Your task to perform on an android device: check out phone information Image 0: 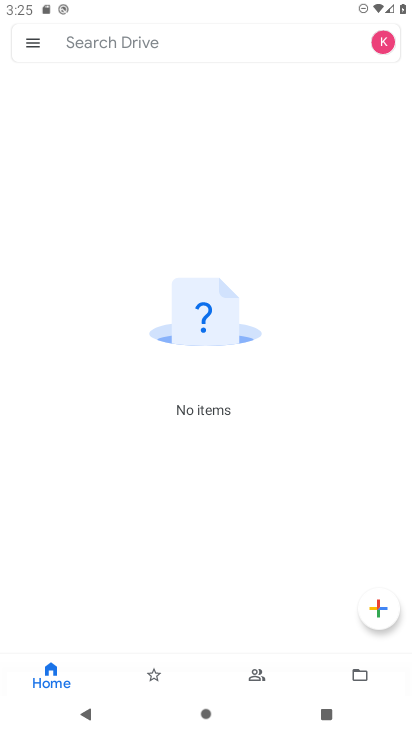
Step 0: drag from (218, 611) to (193, 184)
Your task to perform on an android device: check out phone information Image 1: 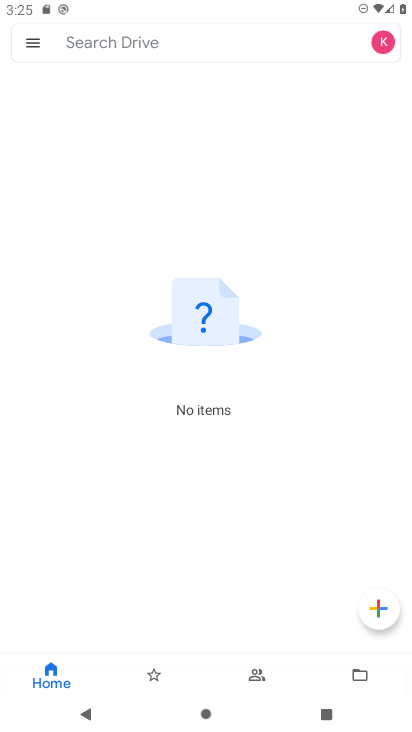
Step 1: press home button
Your task to perform on an android device: check out phone information Image 2: 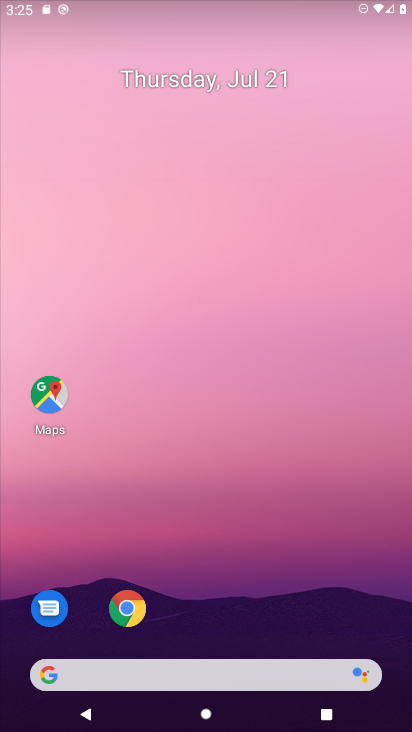
Step 2: drag from (258, 598) to (200, 69)
Your task to perform on an android device: check out phone information Image 3: 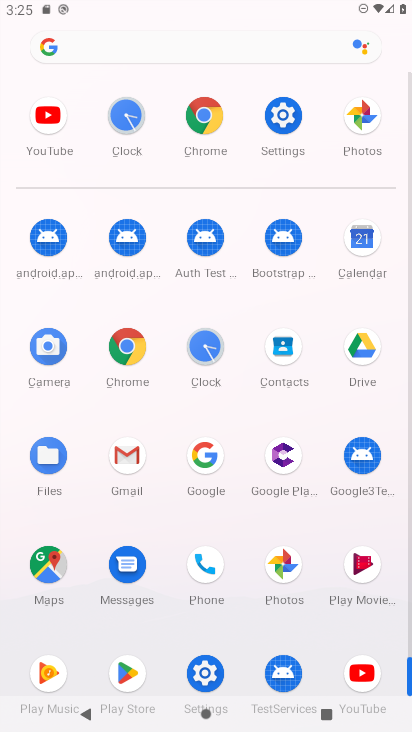
Step 3: click (275, 124)
Your task to perform on an android device: check out phone information Image 4: 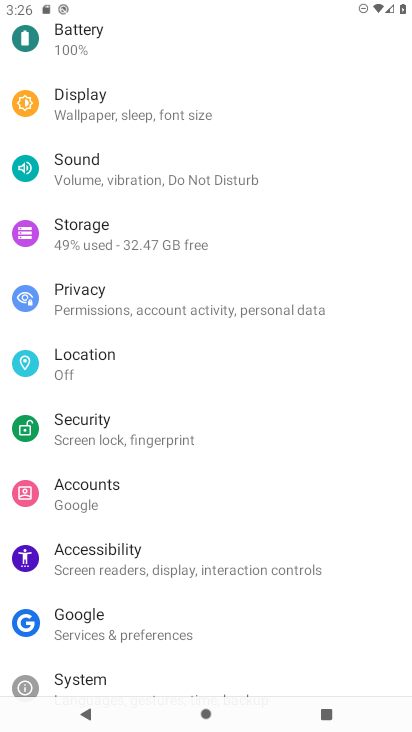
Step 4: drag from (222, 625) to (223, 195)
Your task to perform on an android device: check out phone information Image 5: 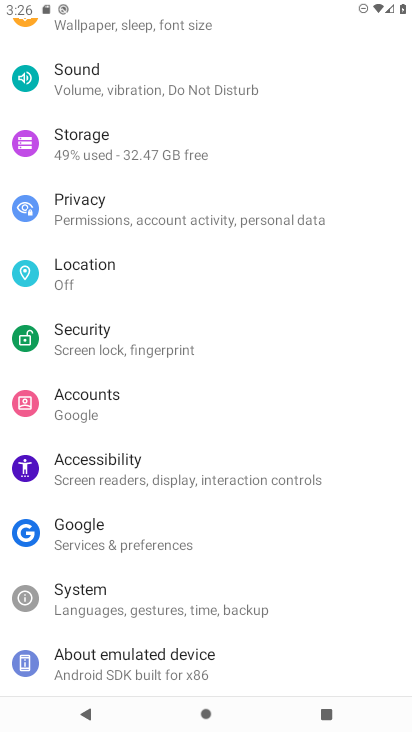
Step 5: click (162, 641)
Your task to perform on an android device: check out phone information Image 6: 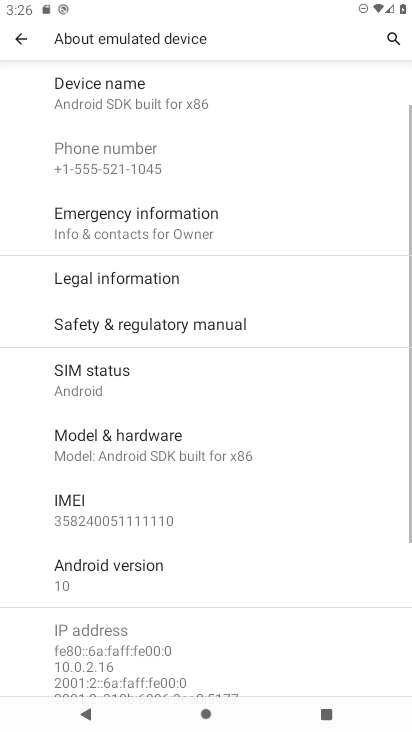
Step 6: task complete